Your task to perform on an android device: turn off smart reply in the gmail app Image 0: 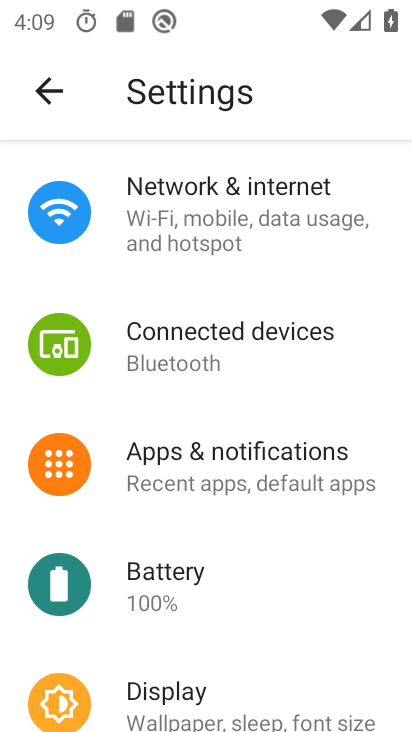
Step 0: press home button
Your task to perform on an android device: turn off smart reply in the gmail app Image 1: 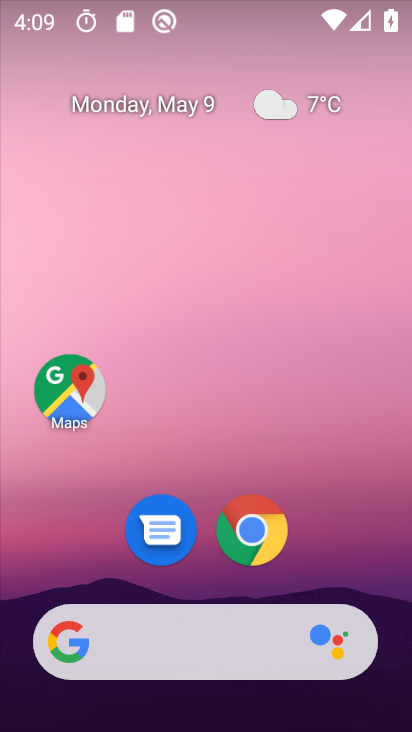
Step 1: drag from (143, 537) to (222, 26)
Your task to perform on an android device: turn off smart reply in the gmail app Image 2: 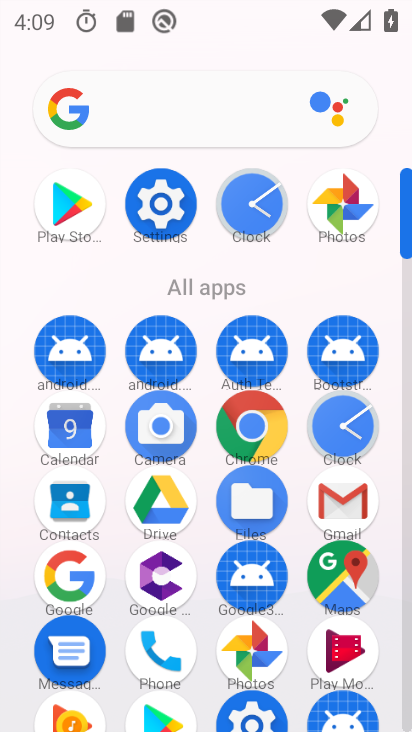
Step 2: click (339, 498)
Your task to perform on an android device: turn off smart reply in the gmail app Image 3: 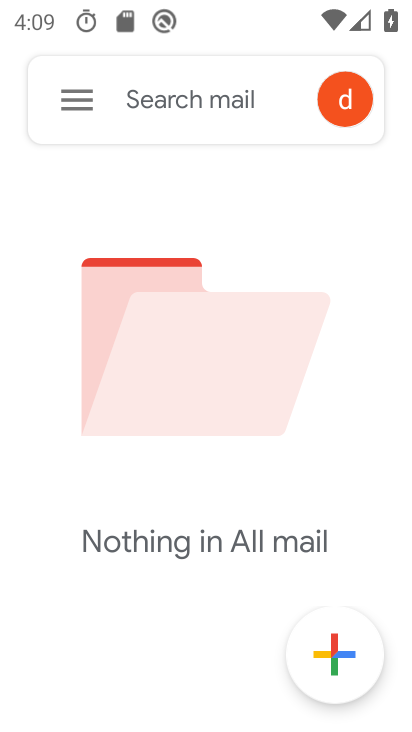
Step 3: click (67, 86)
Your task to perform on an android device: turn off smart reply in the gmail app Image 4: 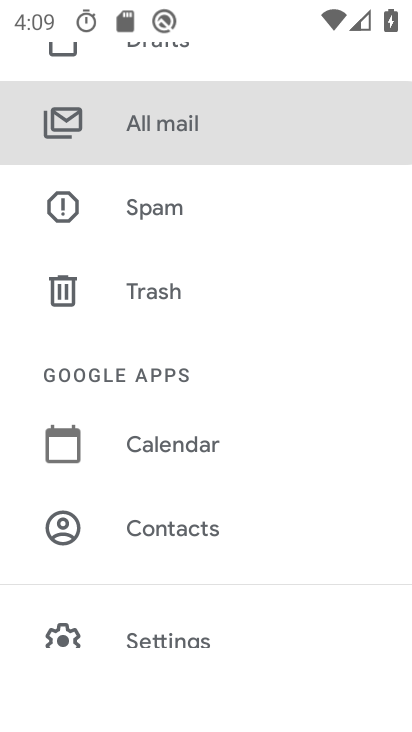
Step 4: drag from (153, 657) to (284, 78)
Your task to perform on an android device: turn off smart reply in the gmail app Image 5: 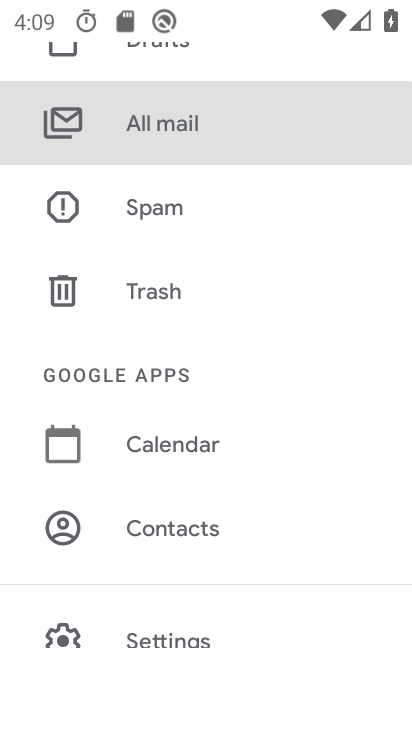
Step 5: click (156, 635)
Your task to perform on an android device: turn off smart reply in the gmail app Image 6: 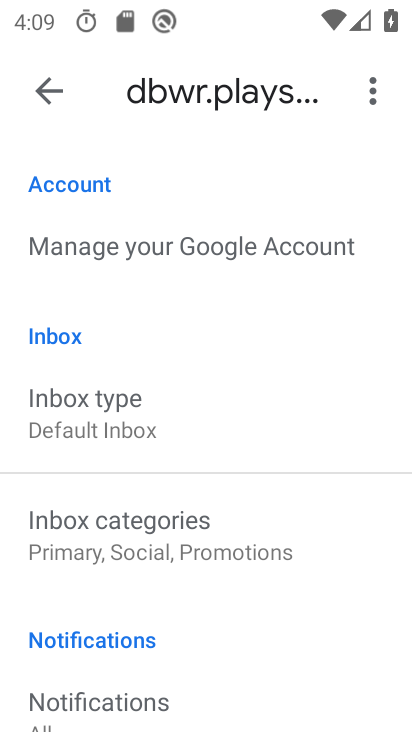
Step 6: drag from (131, 665) to (214, 201)
Your task to perform on an android device: turn off smart reply in the gmail app Image 7: 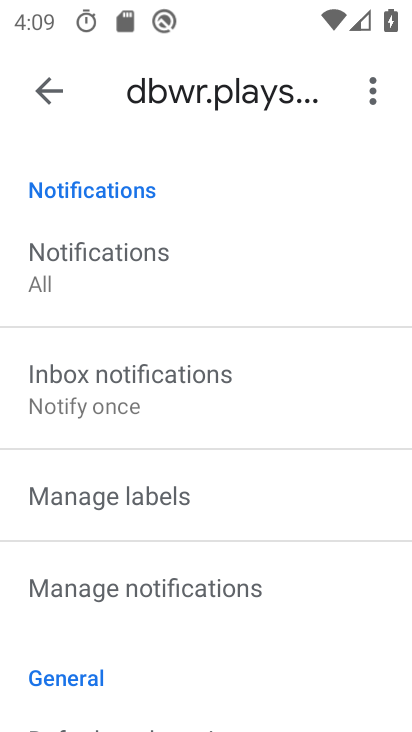
Step 7: drag from (122, 656) to (275, 147)
Your task to perform on an android device: turn off smart reply in the gmail app Image 8: 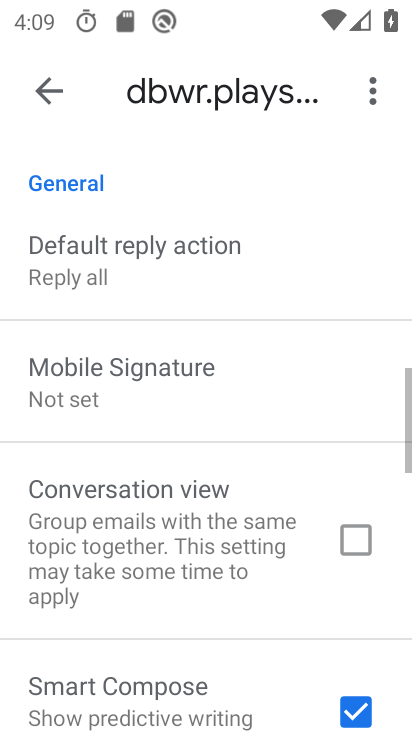
Step 8: drag from (161, 692) to (229, 124)
Your task to perform on an android device: turn off smart reply in the gmail app Image 9: 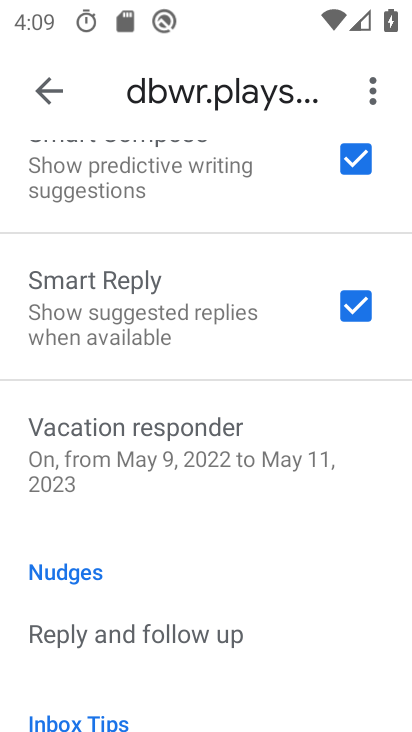
Step 9: click (352, 305)
Your task to perform on an android device: turn off smart reply in the gmail app Image 10: 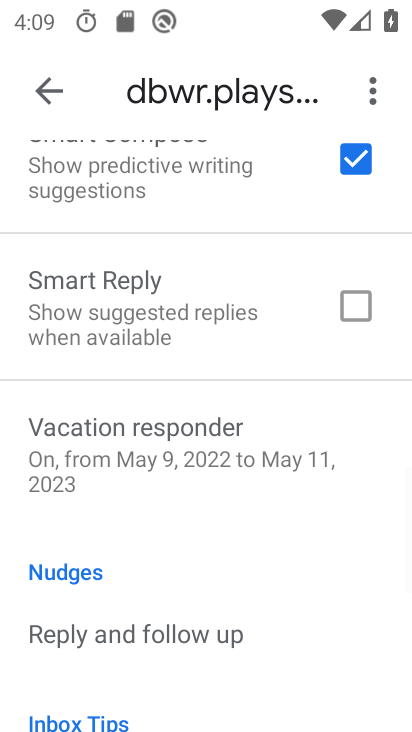
Step 10: task complete